Your task to perform on an android device: Go to Yahoo.com Image 0: 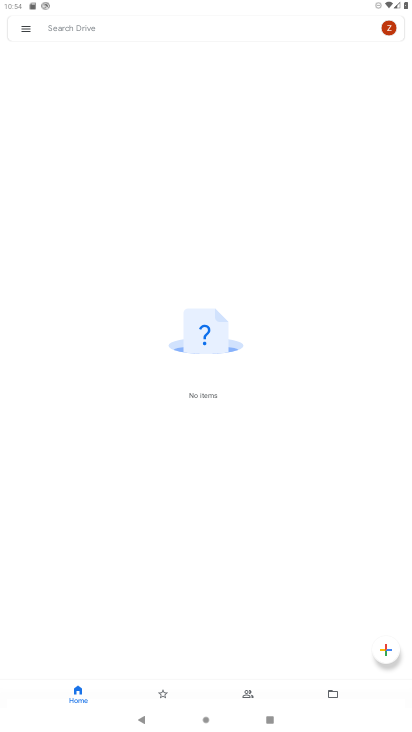
Step 0: press home button
Your task to perform on an android device: Go to Yahoo.com Image 1: 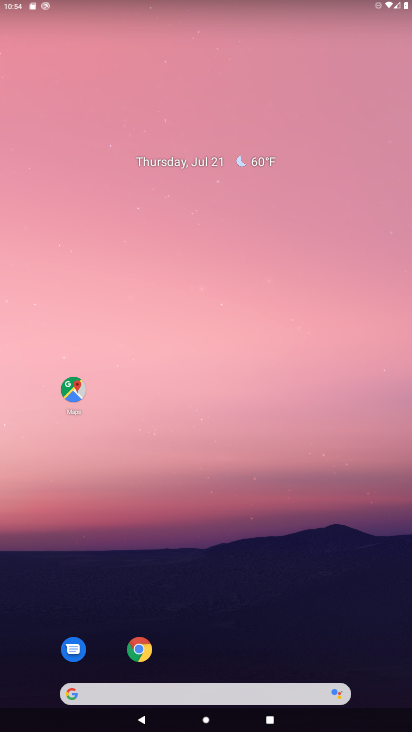
Step 1: click (138, 646)
Your task to perform on an android device: Go to Yahoo.com Image 2: 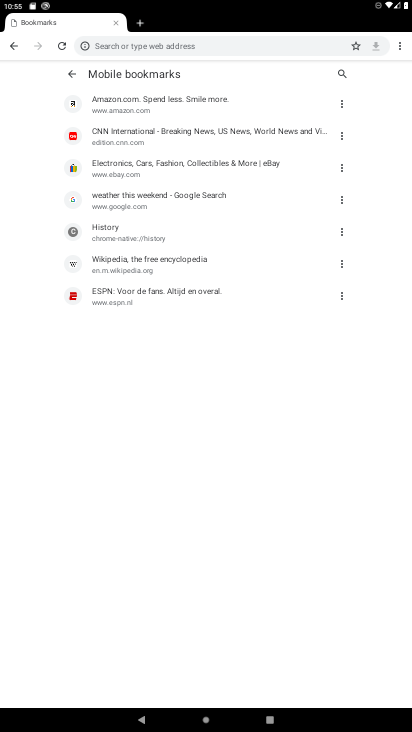
Step 2: click (275, 41)
Your task to perform on an android device: Go to Yahoo.com Image 3: 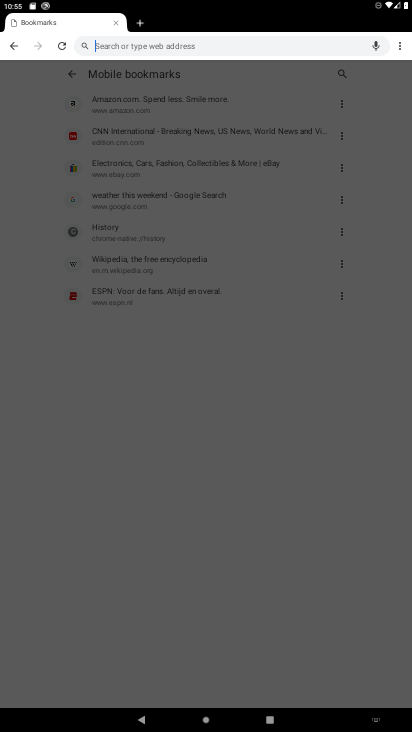
Step 3: type "Yahoo.com"
Your task to perform on an android device: Go to Yahoo.com Image 4: 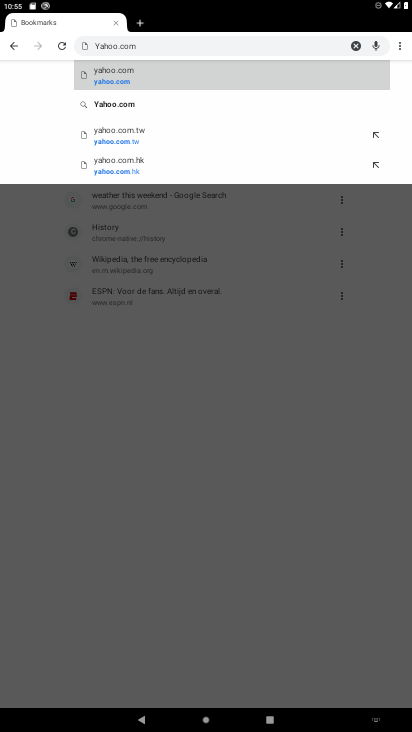
Step 4: click (121, 102)
Your task to perform on an android device: Go to Yahoo.com Image 5: 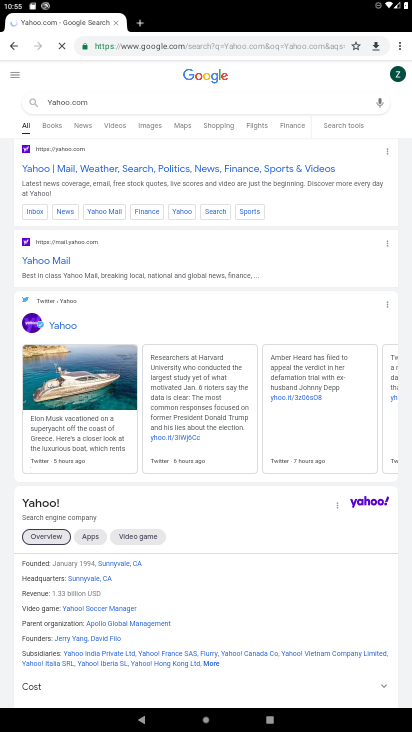
Step 5: task complete